Your task to perform on an android device: turn off data saver in the chrome app Image 0: 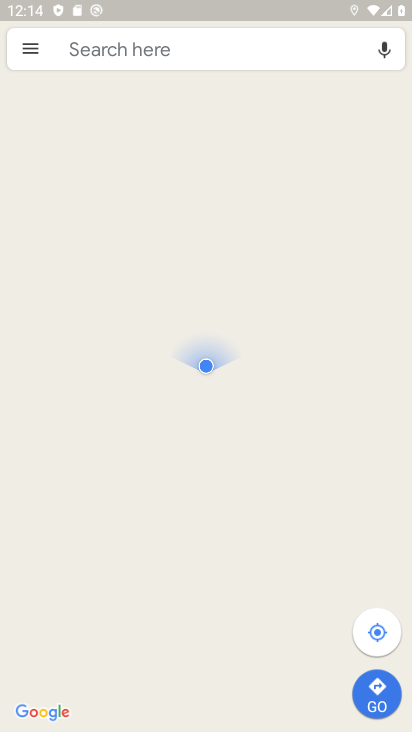
Step 0: press home button
Your task to perform on an android device: turn off data saver in the chrome app Image 1: 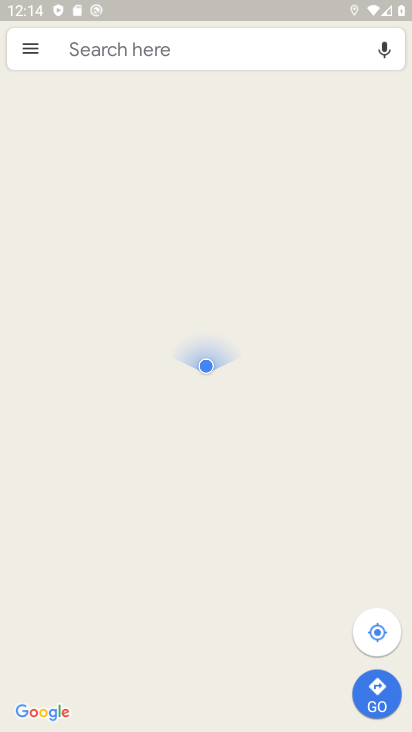
Step 1: click (106, 197)
Your task to perform on an android device: turn off data saver in the chrome app Image 2: 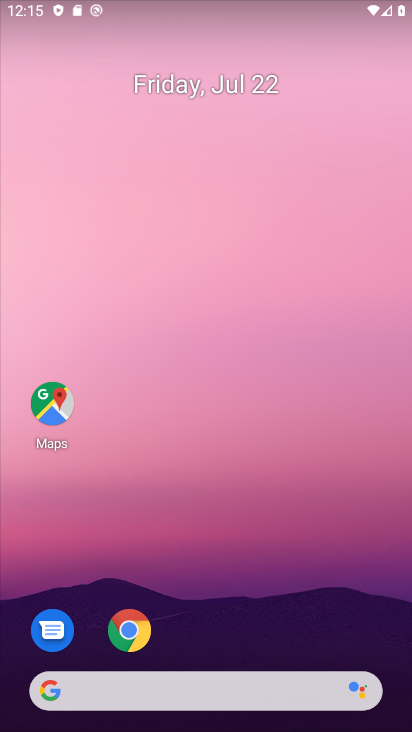
Step 2: click (138, 616)
Your task to perform on an android device: turn off data saver in the chrome app Image 3: 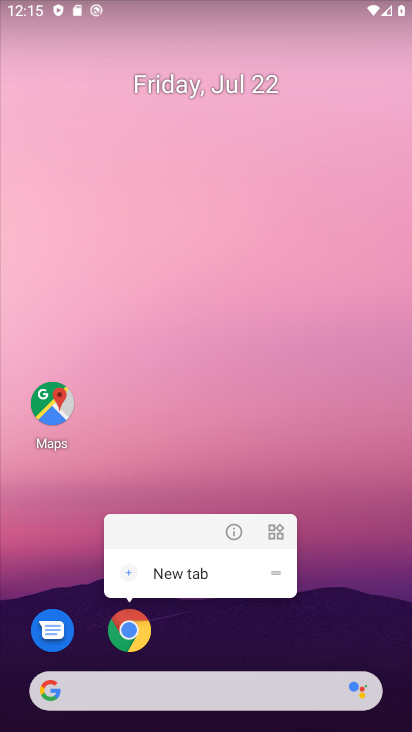
Step 3: click (125, 629)
Your task to perform on an android device: turn off data saver in the chrome app Image 4: 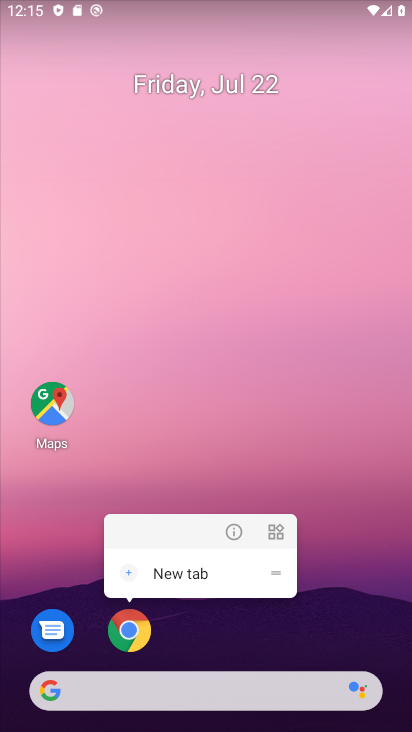
Step 4: click (138, 642)
Your task to perform on an android device: turn off data saver in the chrome app Image 5: 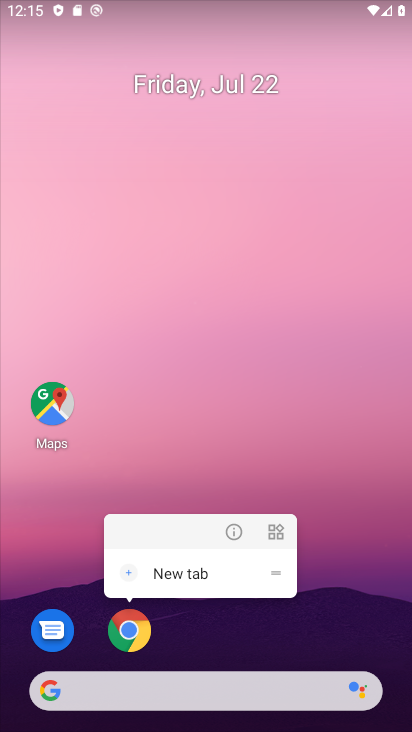
Step 5: click (138, 642)
Your task to perform on an android device: turn off data saver in the chrome app Image 6: 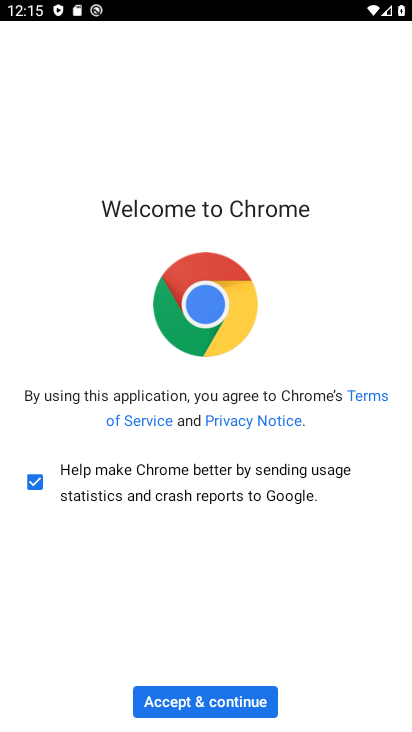
Step 6: click (249, 697)
Your task to perform on an android device: turn off data saver in the chrome app Image 7: 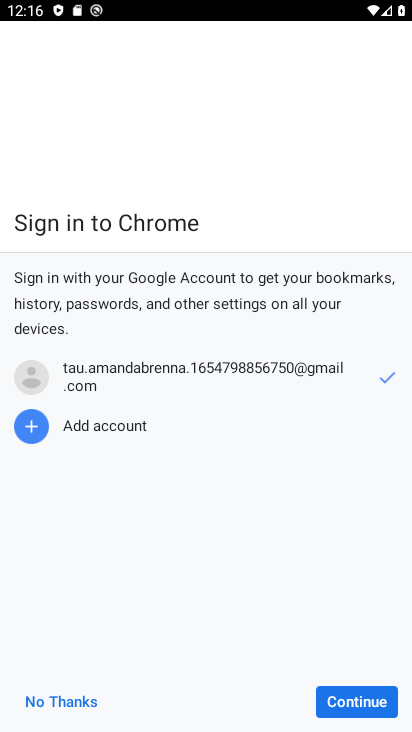
Step 7: click (350, 706)
Your task to perform on an android device: turn off data saver in the chrome app Image 8: 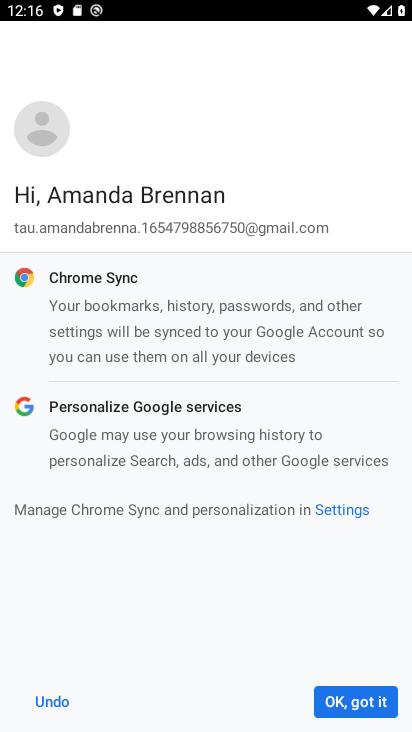
Step 8: click (350, 695)
Your task to perform on an android device: turn off data saver in the chrome app Image 9: 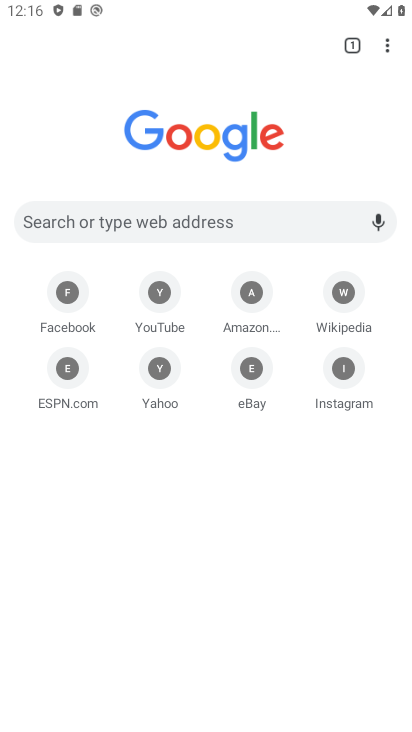
Step 9: drag from (391, 38) to (212, 386)
Your task to perform on an android device: turn off data saver in the chrome app Image 10: 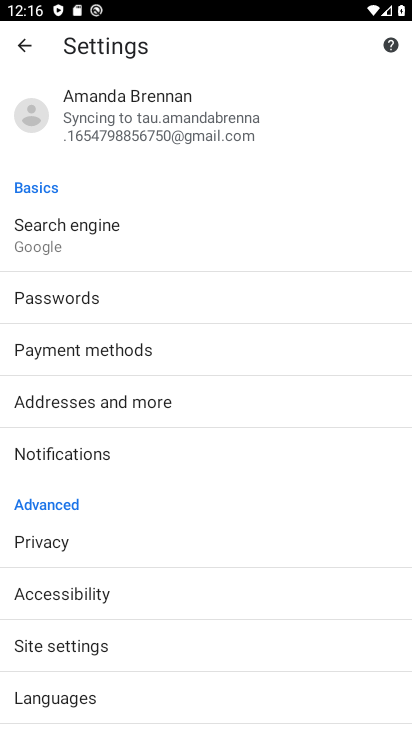
Step 10: drag from (115, 642) to (118, 492)
Your task to perform on an android device: turn off data saver in the chrome app Image 11: 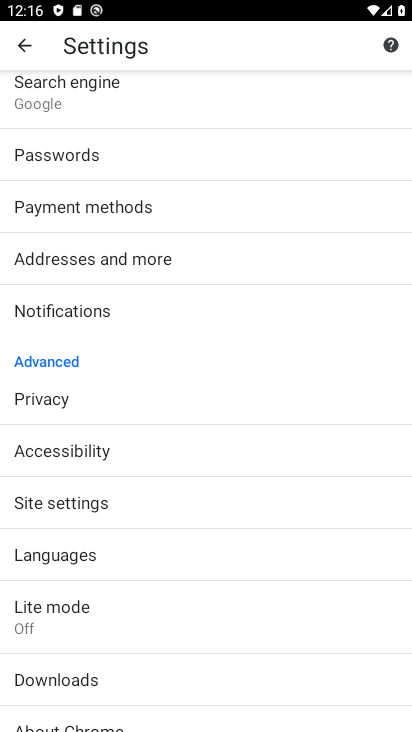
Step 11: click (143, 605)
Your task to perform on an android device: turn off data saver in the chrome app Image 12: 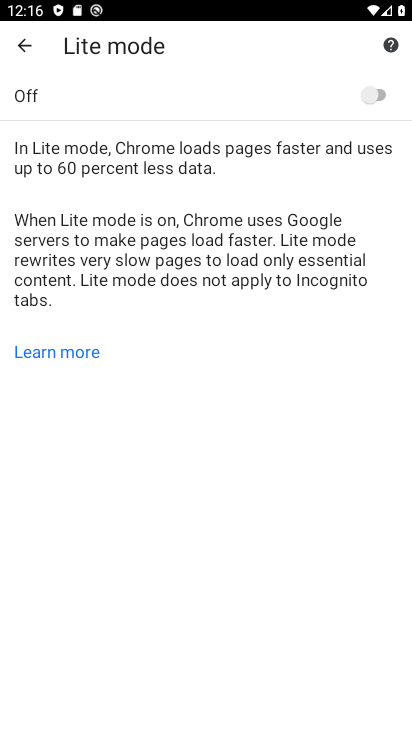
Step 12: task complete